Your task to perform on an android device: toggle sleep mode Image 0: 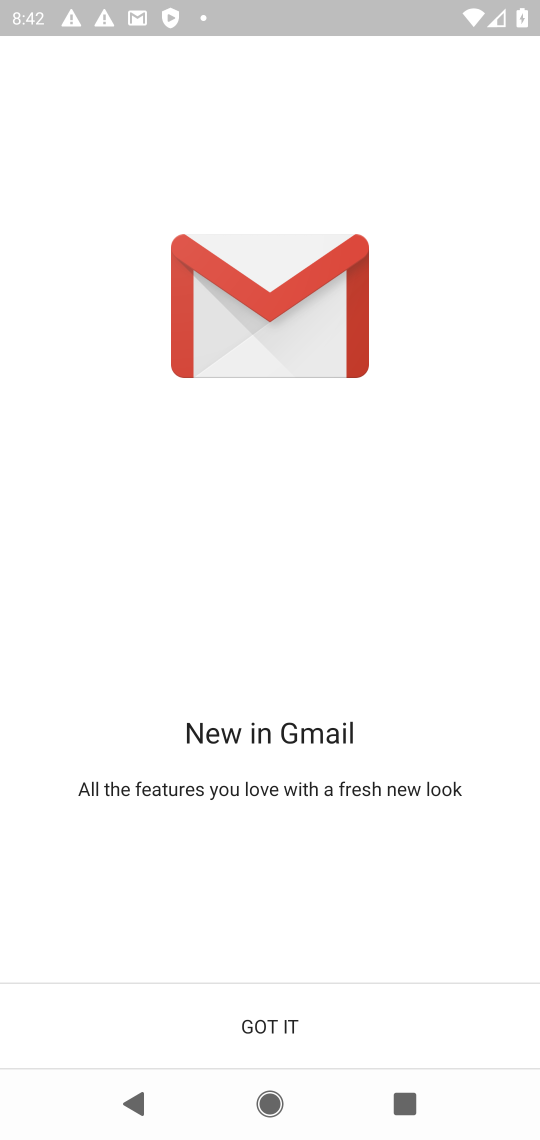
Step 0: press home button
Your task to perform on an android device: toggle sleep mode Image 1: 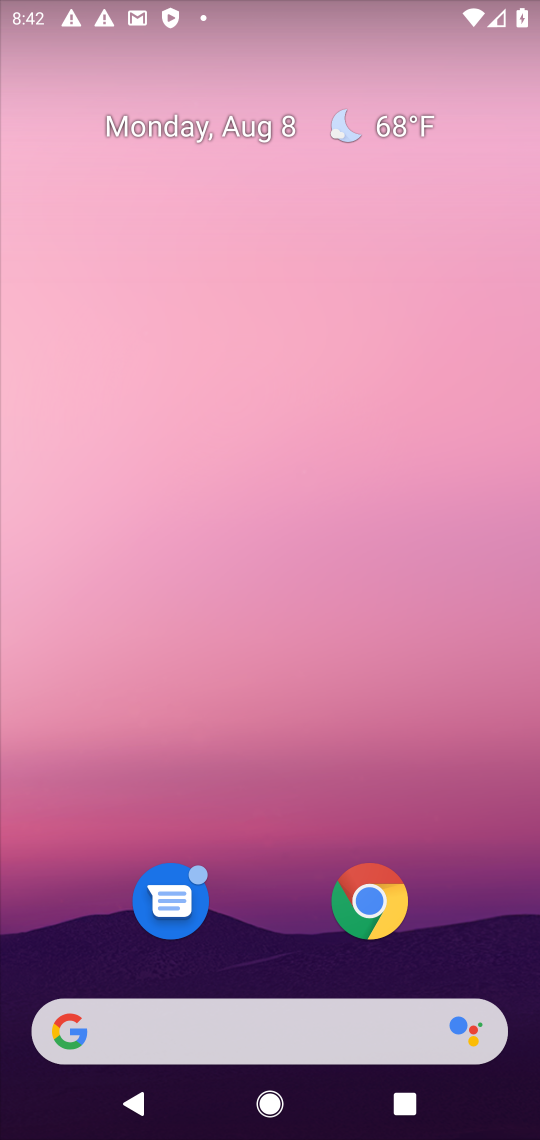
Step 1: drag from (265, 974) to (233, 40)
Your task to perform on an android device: toggle sleep mode Image 2: 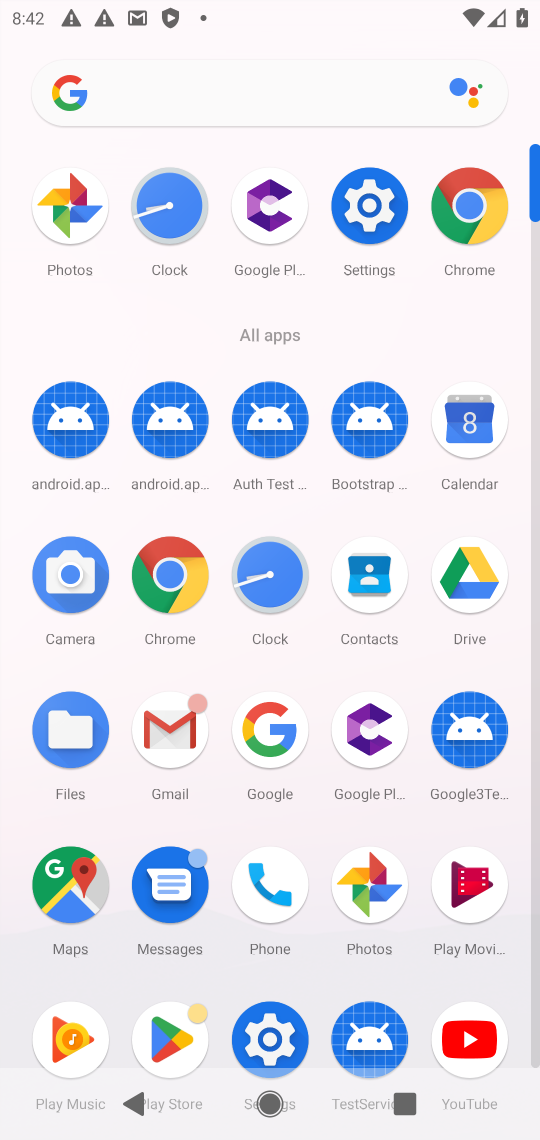
Step 2: click (367, 205)
Your task to perform on an android device: toggle sleep mode Image 3: 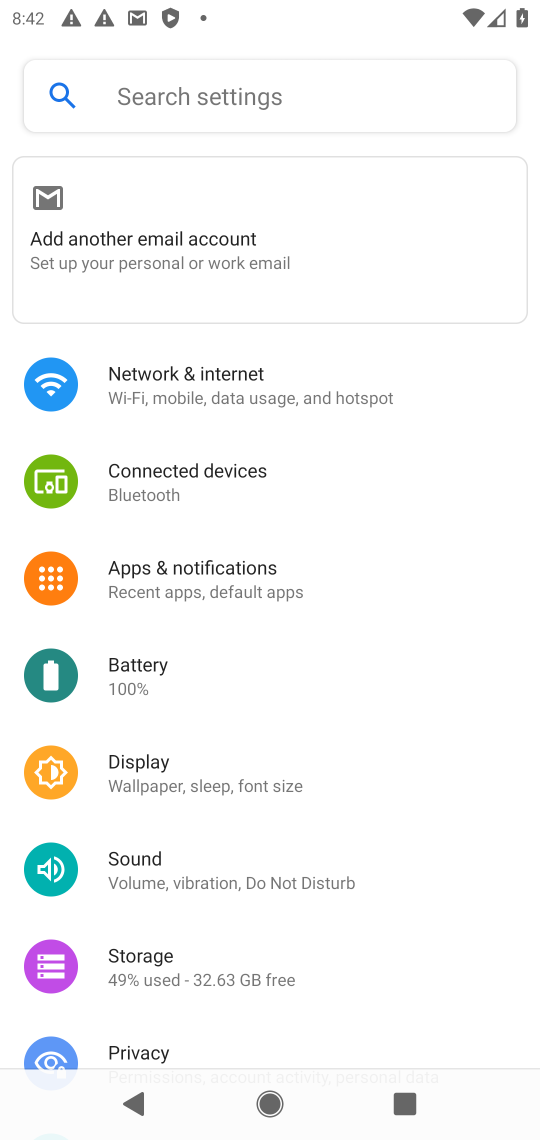
Step 3: task complete